Your task to perform on an android device: toggle translation in the chrome app Image 0: 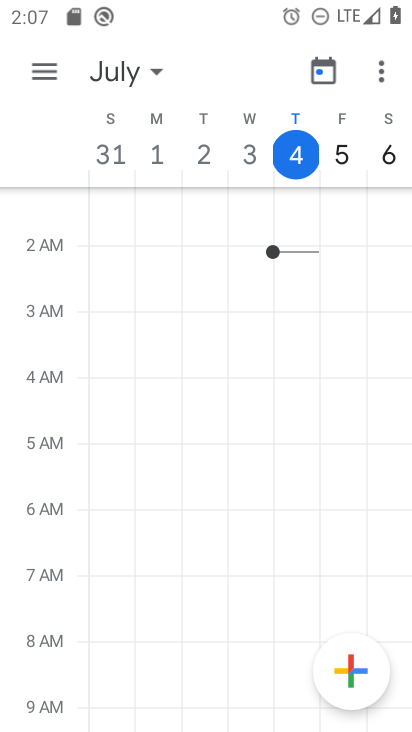
Step 0: press home button
Your task to perform on an android device: toggle translation in the chrome app Image 1: 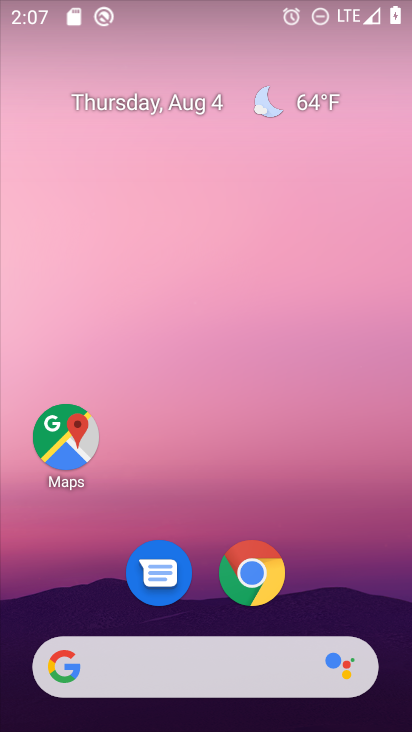
Step 1: drag from (332, 570) to (312, 110)
Your task to perform on an android device: toggle translation in the chrome app Image 2: 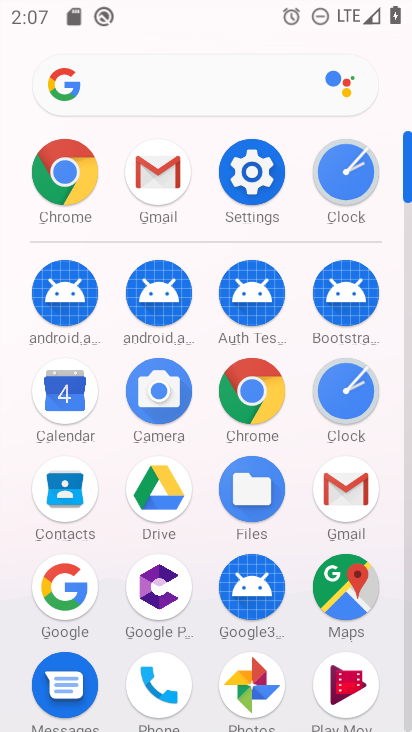
Step 2: click (252, 394)
Your task to perform on an android device: toggle translation in the chrome app Image 3: 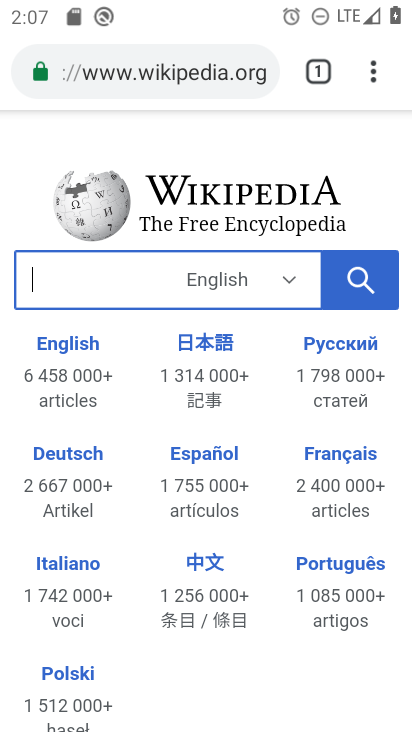
Step 3: drag from (371, 62) to (208, 547)
Your task to perform on an android device: toggle translation in the chrome app Image 4: 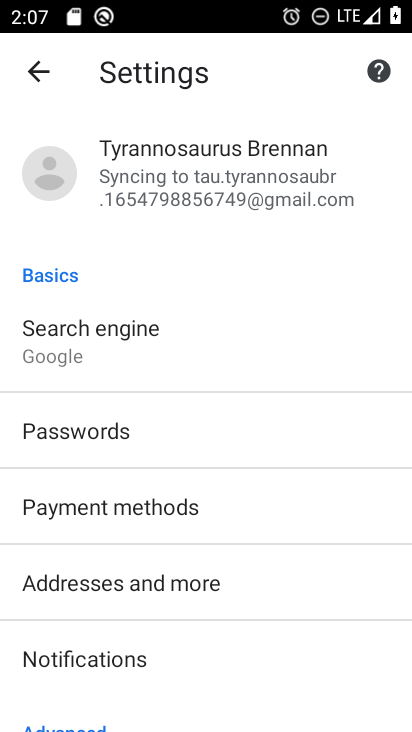
Step 4: drag from (269, 588) to (256, 155)
Your task to perform on an android device: toggle translation in the chrome app Image 5: 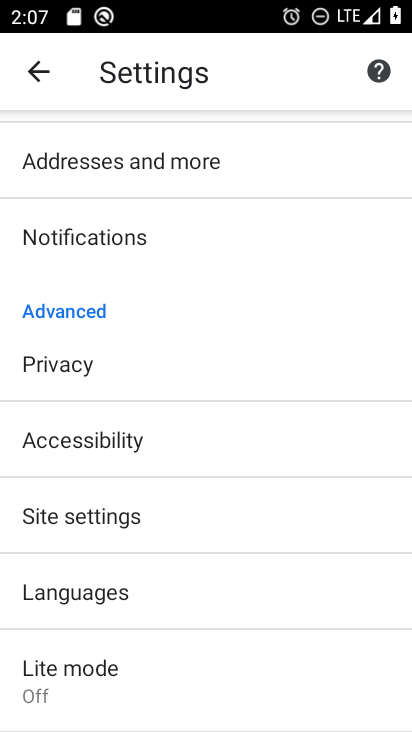
Step 5: drag from (196, 434) to (239, 182)
Your task to perform on an android device: toggle translation in the chrome app Image 6: 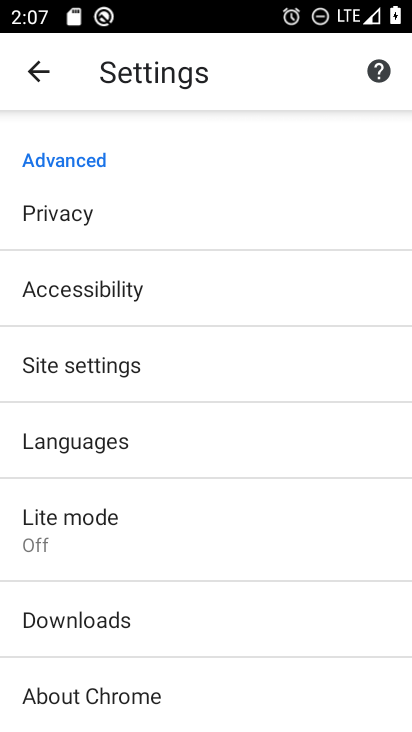
Step 6: click (108, 443)
Your task to perform on an android device: toggle translation in the chrome app Image 7: 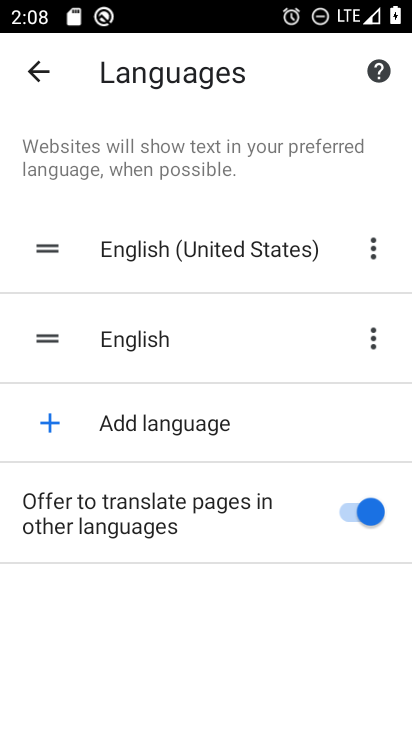
Step 7: click (355, 519)
Your task to perform on an android device: toggle translation in the chrome app Image 8: 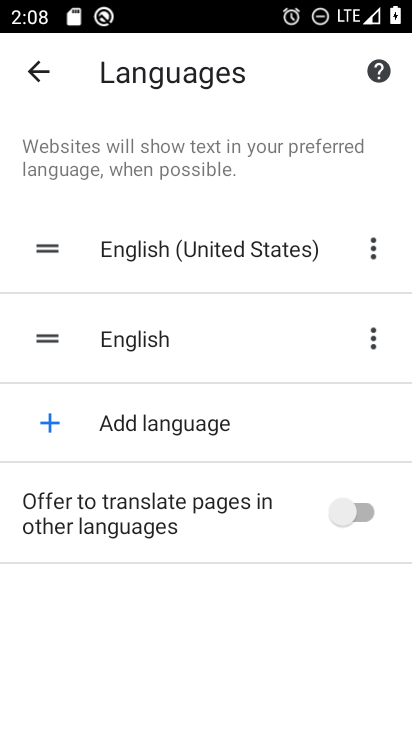
Step 8: task complete